Your task to perform on an android device: add a contact Image 0: 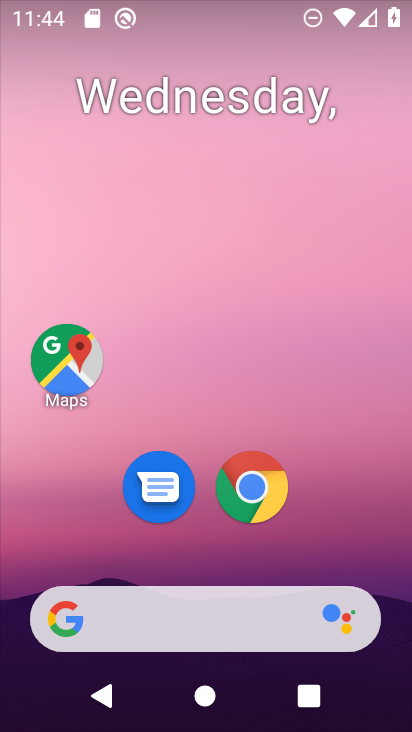
Step 0: drag from (232, 230) to (220, 160)
Your task to perform on an android device: add a contact Image 1: 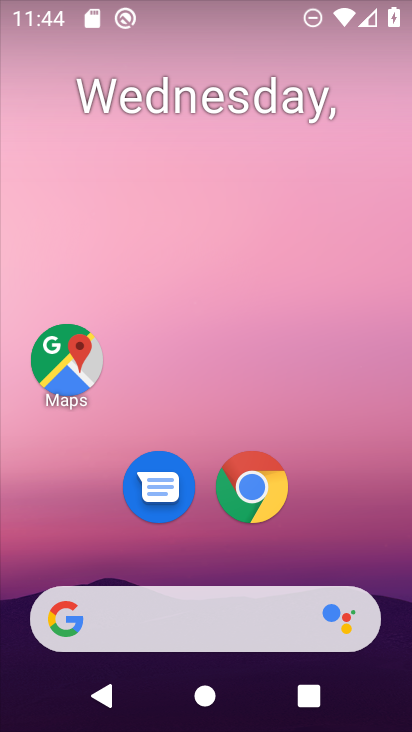
Step 1: drag from (203, 372) to (254, 31)
Your task to perform on an android device: add a contact Image 2: 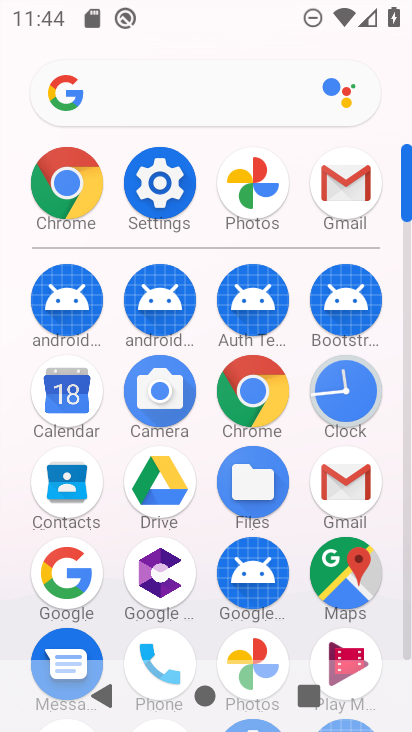
Step 2: click (53, 480)
Your task to perform on an android device: add a contact Image 3: 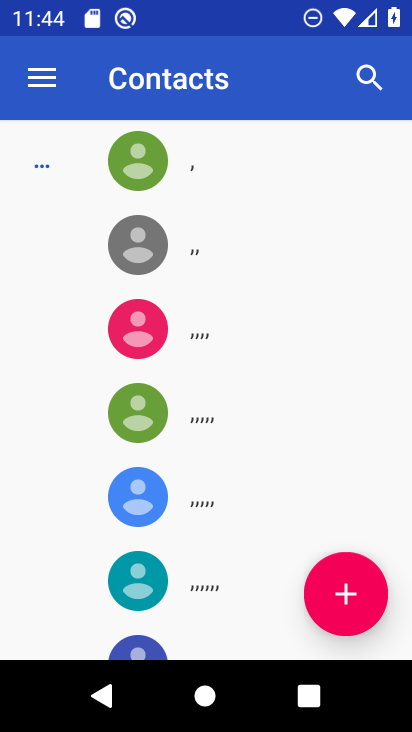
Step 3: click (342, 594)
Your task to perform on an android device: add a contact Image 4: 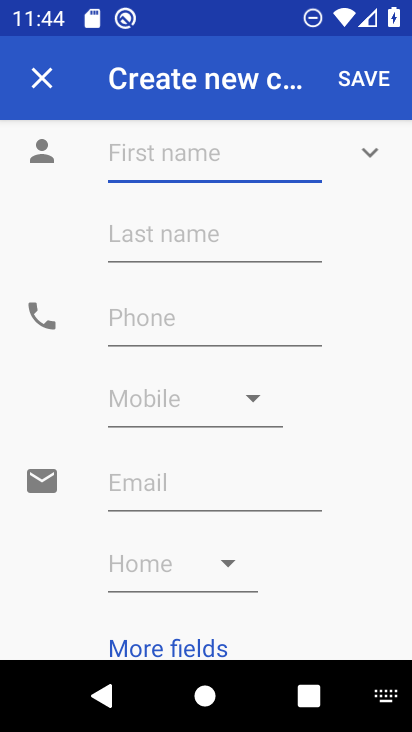
Step 4: type "cdgfv"
Your task to perform on an android device: add a contact Image 5: 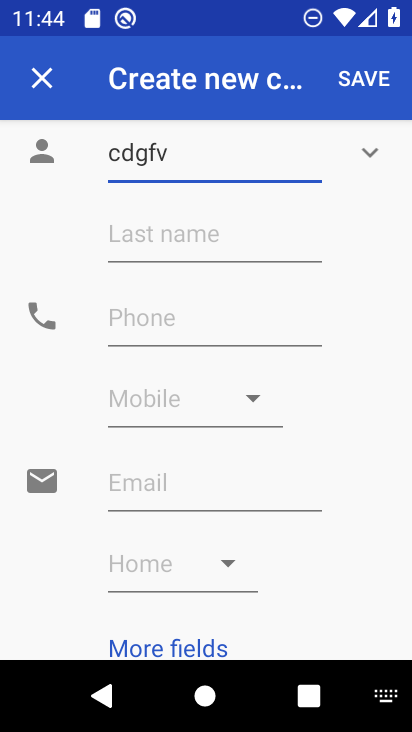
Step 5: click (164, 314)
Your task to perform on an android device: add a contact Image 6: 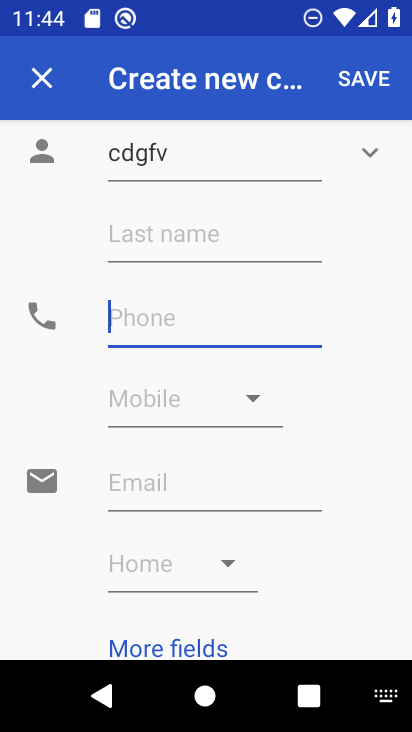
Step 6: type "567755656"
Your task to perform on an android device: add a contact Image 7: 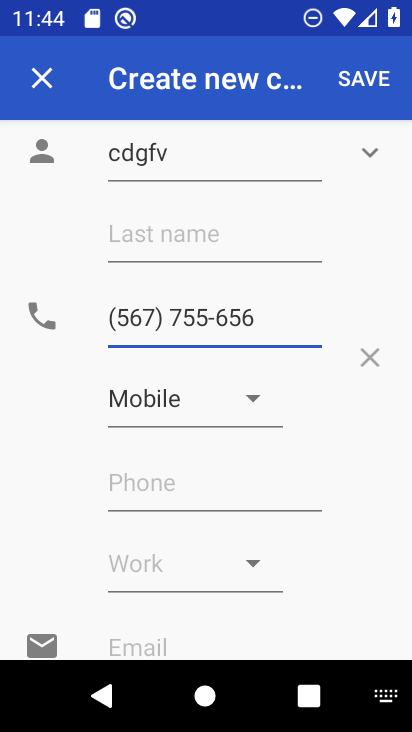
Step 7: click (359, 73)
Your task to perform on an android device: add a contact Image 8: 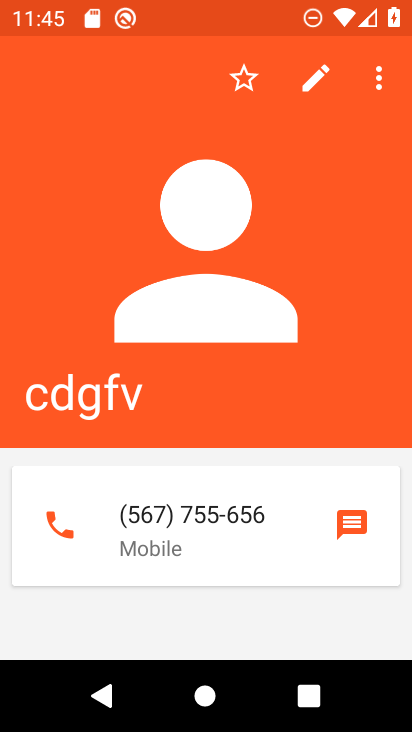
Step 8: task complete